Your task to perform on an android device: turn off data saver in the chrome app Image 0: 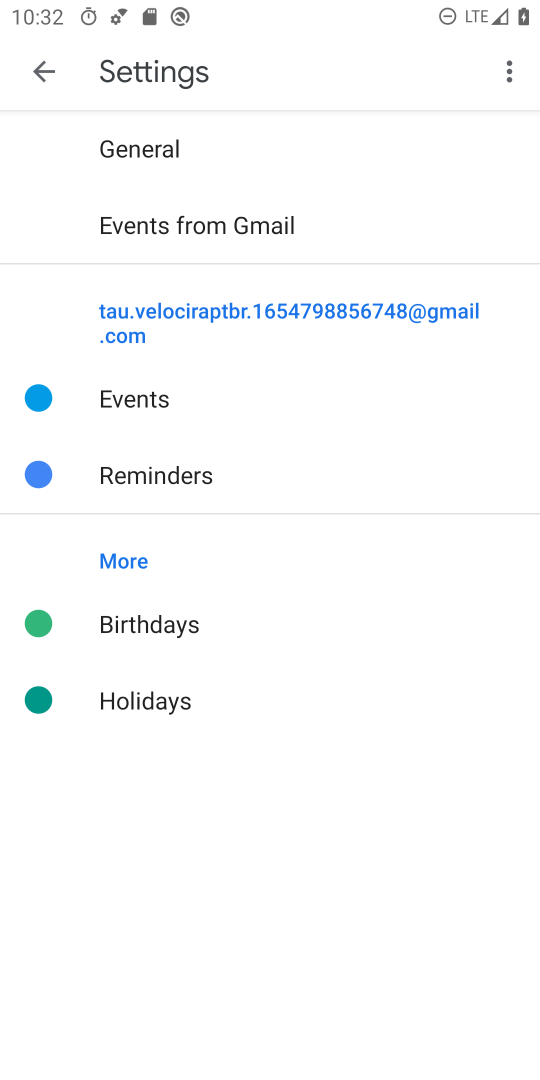
Step 0: press home button
Your task to perform on an android device: turn off data saver in the chrome app Image 1: 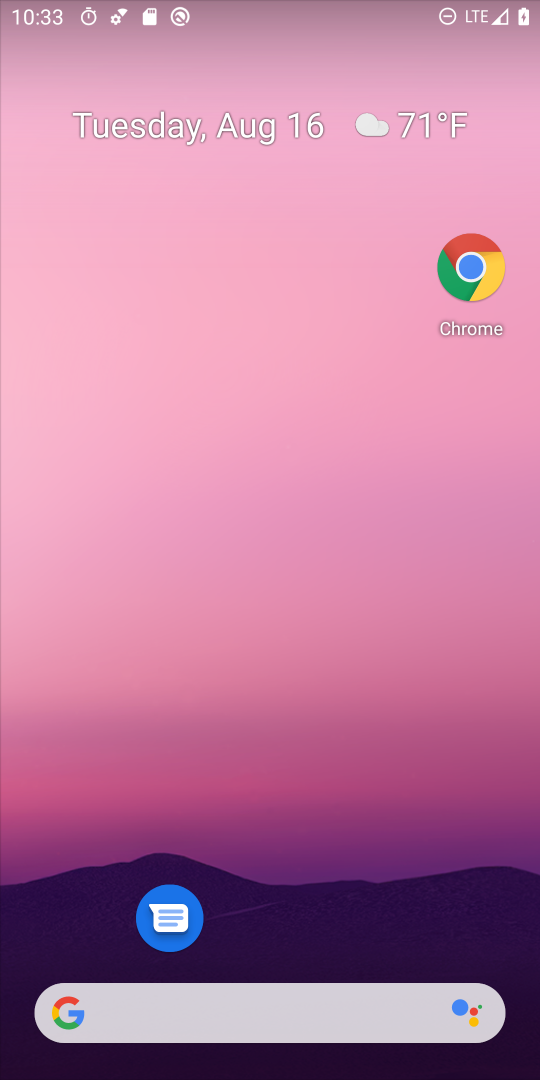
Step 1: drag from (323, 996) to (293, 79)
Your task to perform on an android device: turn off data saver in the chrome app Image 2: 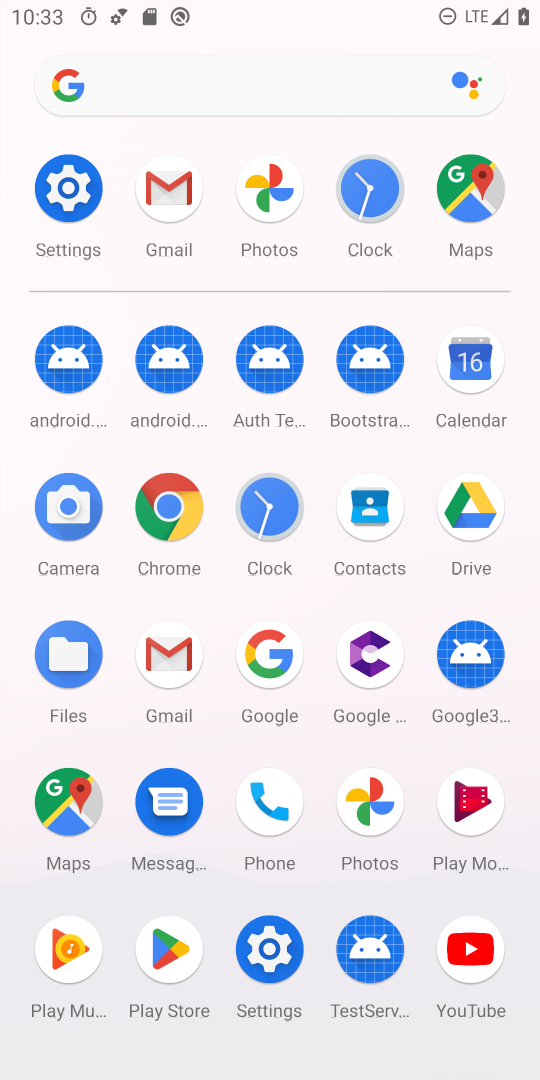
Step 2: click (183, 513)
Your task to perform on an android device: turn off data saver in the chrome app Image 3: 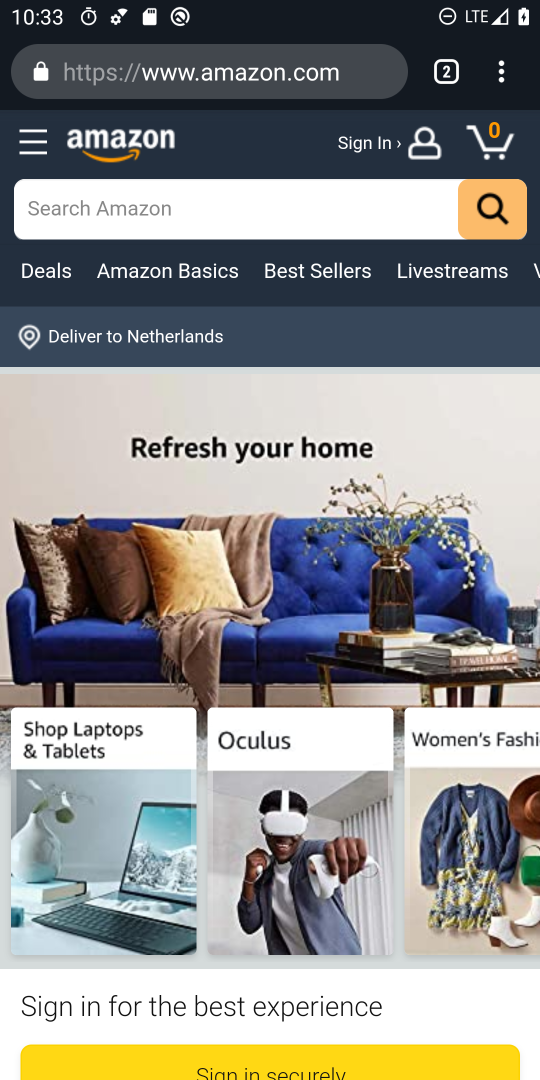
Step 3: click (510, 79)
Your task to perform on an android device: turn off data saver in the chrome app Image 4: 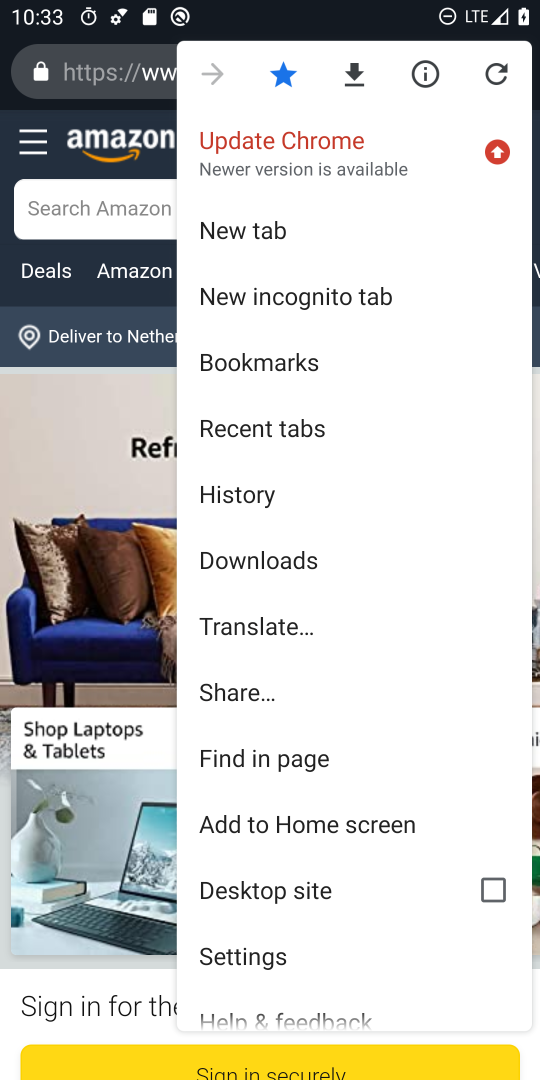
Step 4: click (253, 951)
Your task to perform on an android device: turn off data saver in the chrome app Image 5: 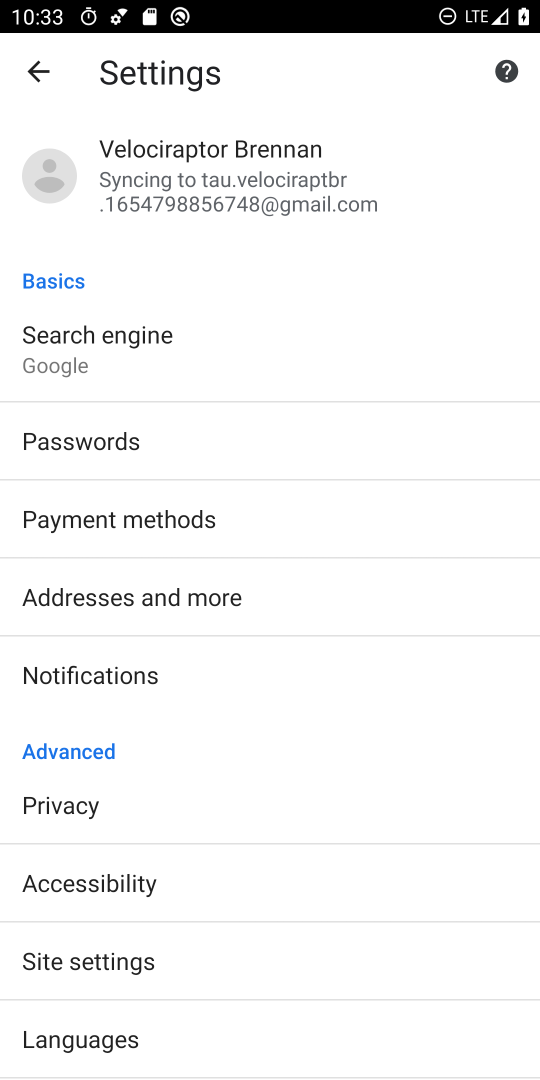
Step 5: drag from (118, 978) to (95, 460)
Your task to perform on an android device: turn off data saver in the chrome app Image 6: 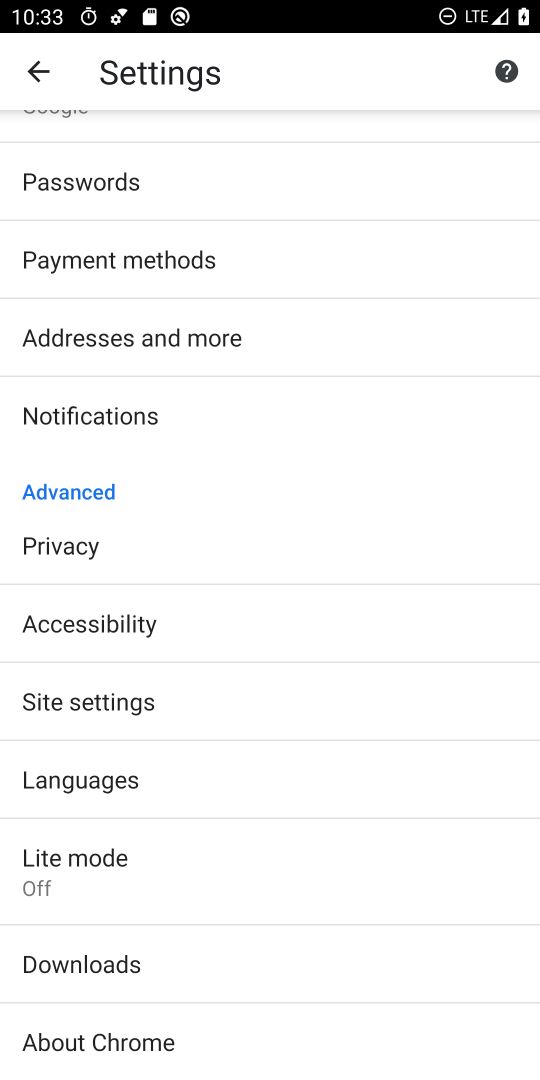
Step 6: click (73, 857)
Your task to perform on an android device: turn off data saver in the chrome app Image 7: 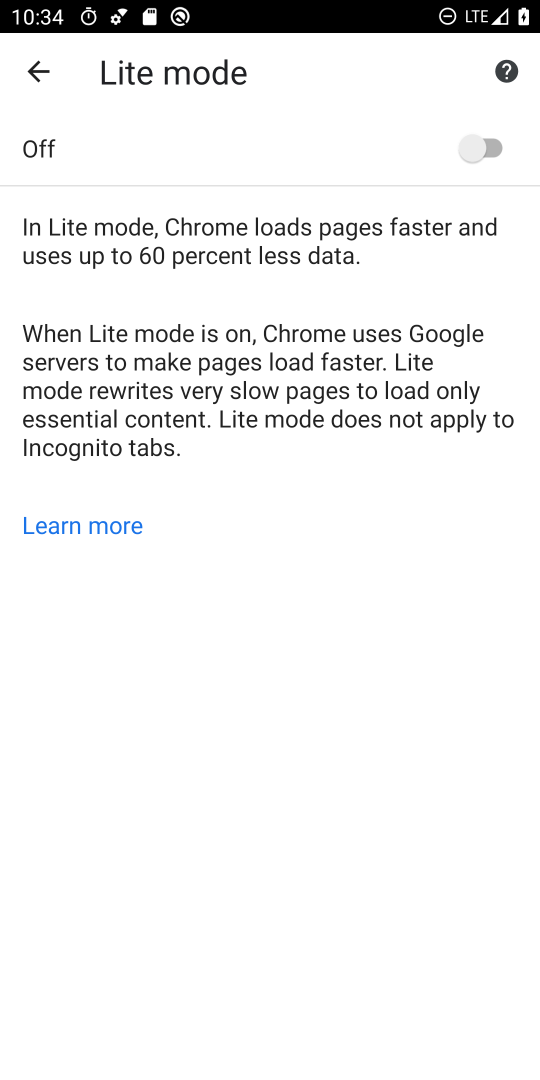
Step 7: task complete